Your task to perform on an android device: see creations saved in the google photos Image 0: 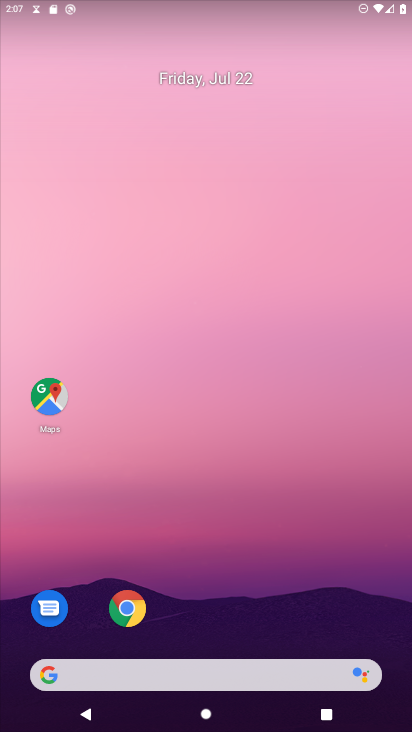
Step 0: drag from (233, 603) to (233, 466)
Your task to perform on an android device: see creations saved in the google photos Image 1: 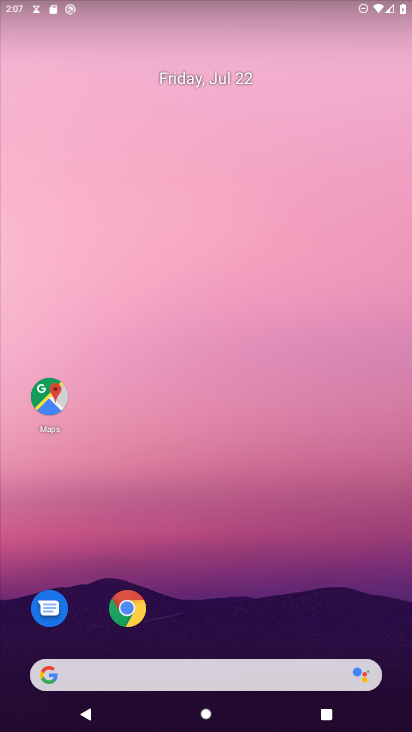
Step 1: drag from (233, 465) to (233, 281)
Your task to perform on an android device: see creations saved in the google photos Image 2: 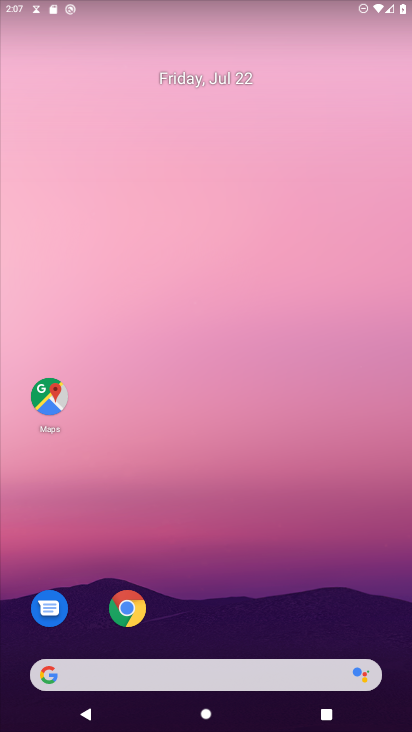
Step 2: drag from (235, 617) to (235, 353)
Your task to perform on an android device: see creations saved in the google photos Image 3: 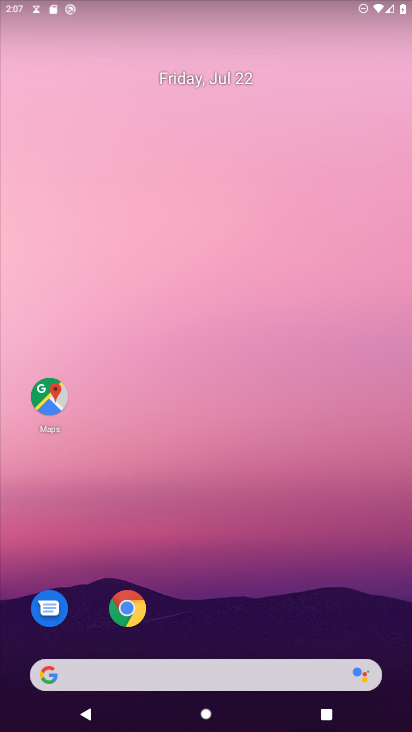
Step 3: drag from (244, 561) to (219, 82)
Your task to perform on an android device: see creations saved in the google photos Image 4: 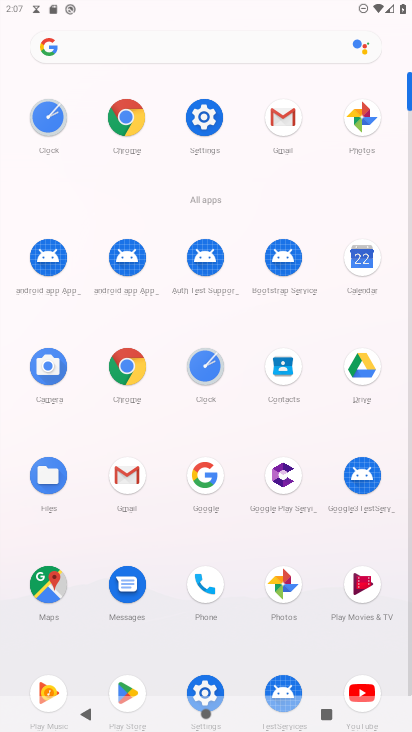
Step 4: click (290, 587)
Your task to perform on an android device: see creations saved in the google photos Image 5: 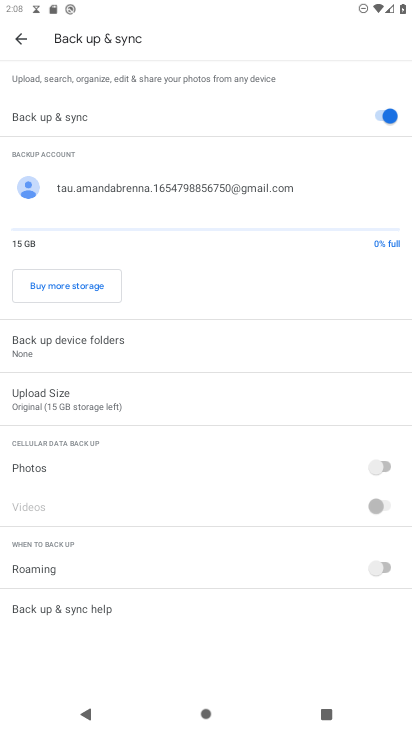
Step 5: click (15, 36)
Your task to perform on an android device: see creations saved in the google photos Image 6: 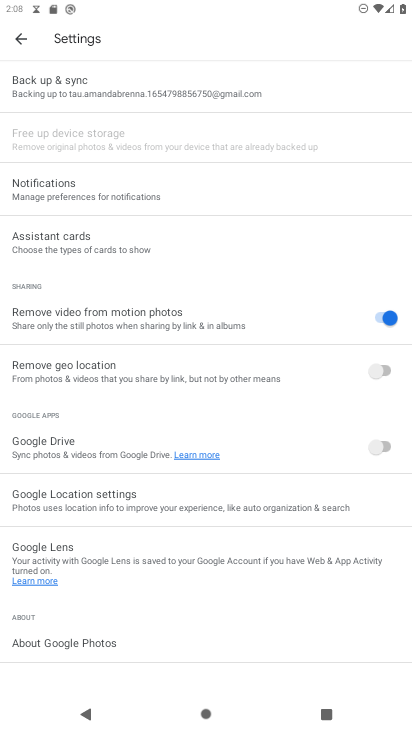
Step 6: click (18, 47)
Your task to perform on an android device: see creations saved in the google photos Image 7: 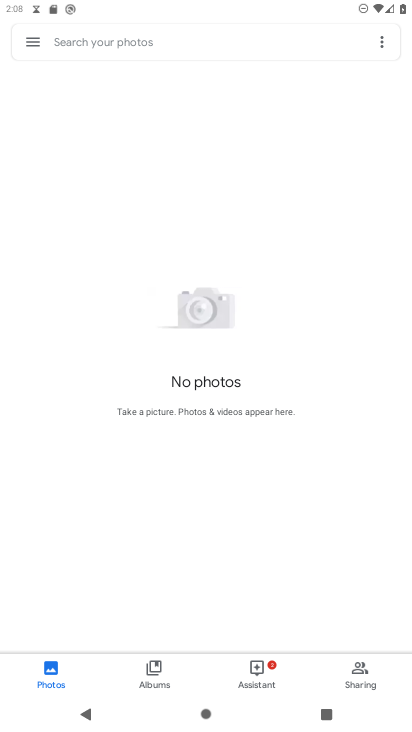
Step 7: click (165, 663)
Your task to perform on an android device: see creations saved in the google photos Image 8: 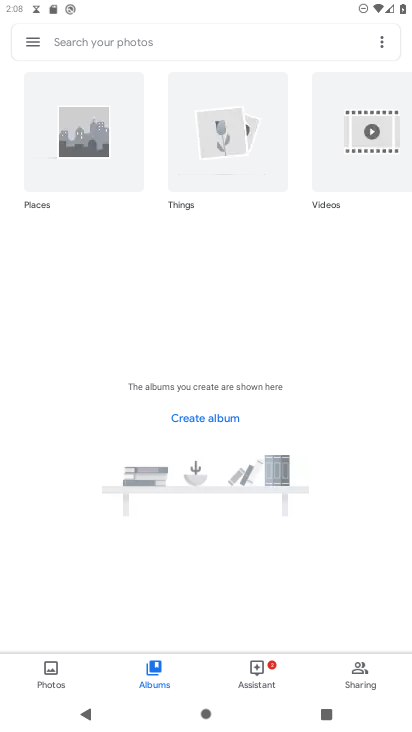
Step 8: click (244, 666)
Your task to perform on an android device: see creations saved in the google photos Image 9: 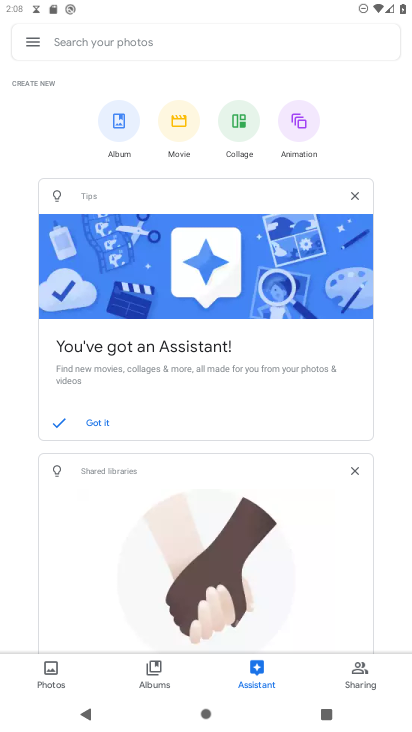
Step 9: click (365, 666)
Your task to perform on an android device: see creations saved in the google photos Image 10: 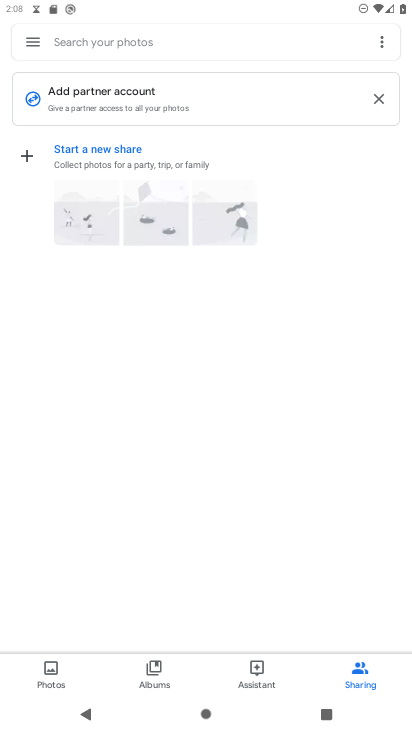
Step 10: task complete